Your task to perform on an android device: Go to accessibility settings Image 0: 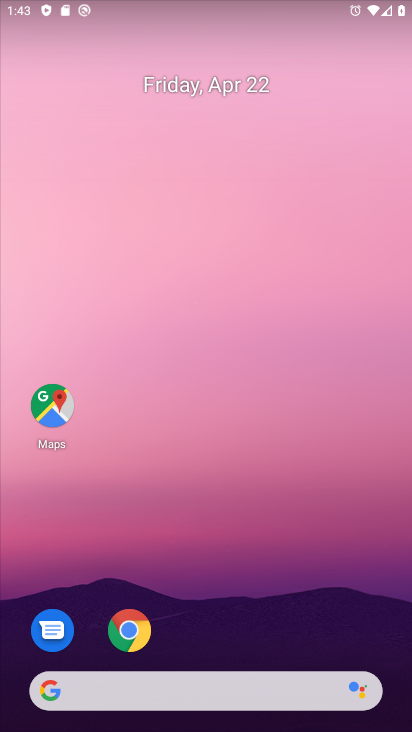
Step 0: drag from (369, 522) to (365, 130)
Your task to perform on an android device: Go to accessibility settings Image 1: 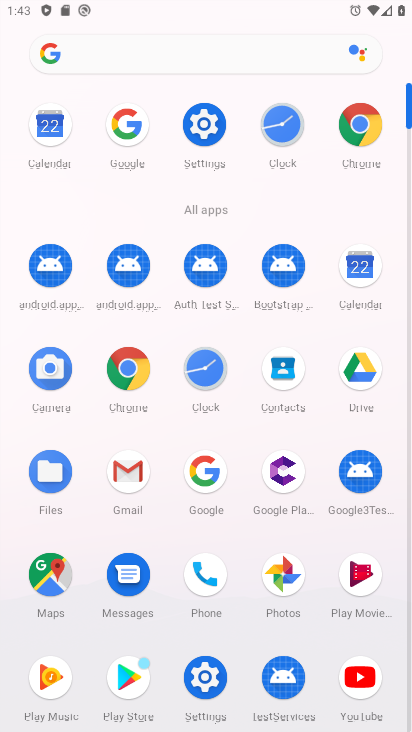
Step 1: click (196, 676)
Your task to perform on an android device: Go to accessibility settings Image 2: 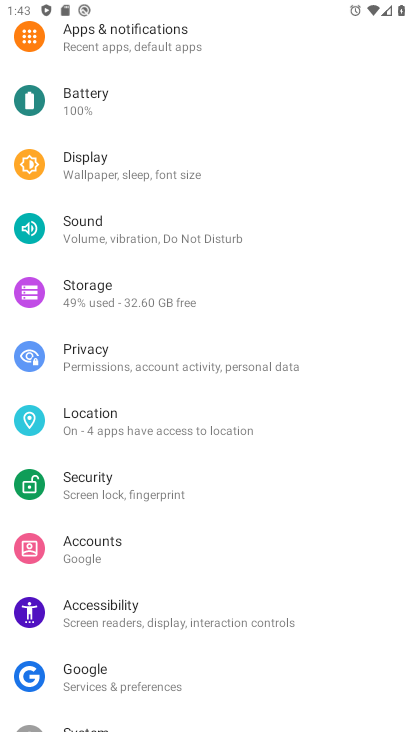
Step 2: click (224, 622)
Your task to perform on an android device: Go to accessibility settings Image 3: 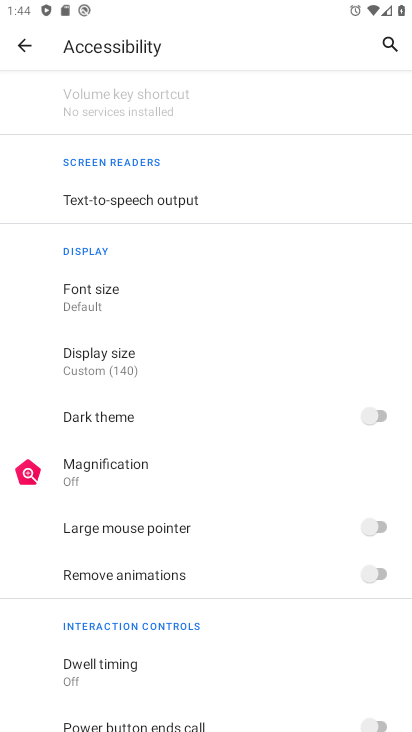
Step 3: task complete